Your task to perform on an android device: Open Google Image 0: 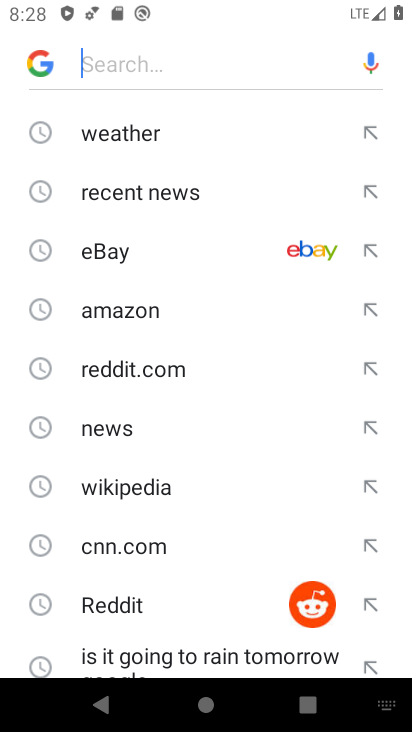
Step 0: press home button
Your task to perform on an android device: Open Google Image 1: 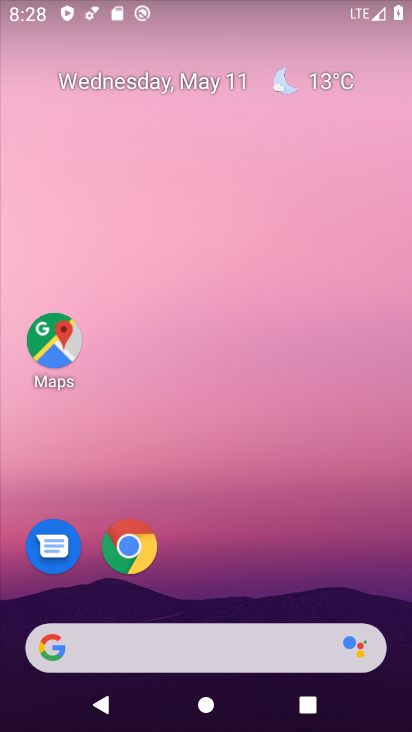
Step 1: drag from (208, 613) to (320, 12)
Your task to perform on an android device: Open Google Image 2: 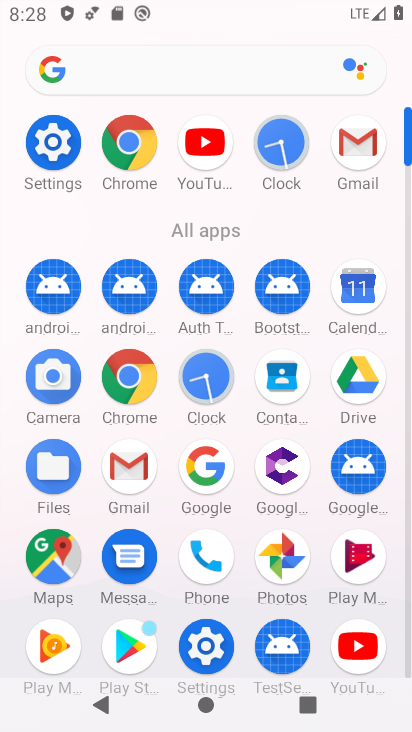
Step 2: click (225, 473)
Your task to perform on an android device: Open Google Image 3: 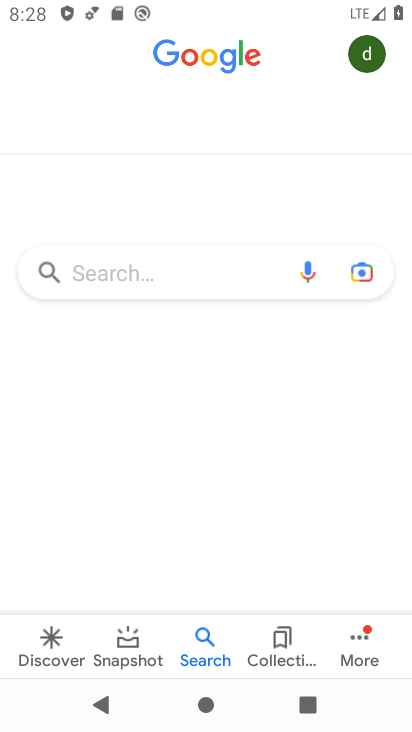
Step 3: task complete